Your task to perform on an android device: open chrome and create a bookmark for the current page Image 0: 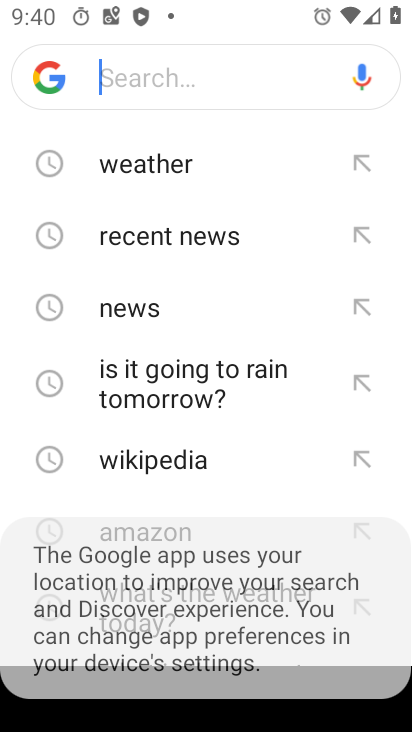
Step 0: press back button
Your task to perform on an android device: open chrome and create a bookmark for the current page Image 1: 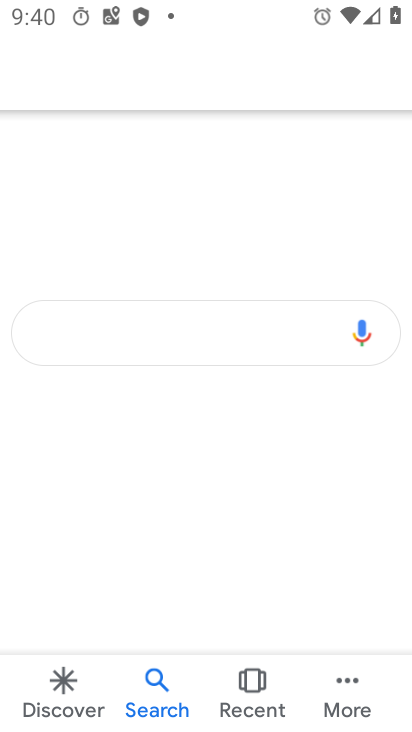
Step 1: press home button
Your task to perform on an android device: open chrome and create a bookmark for the current page Image 2: 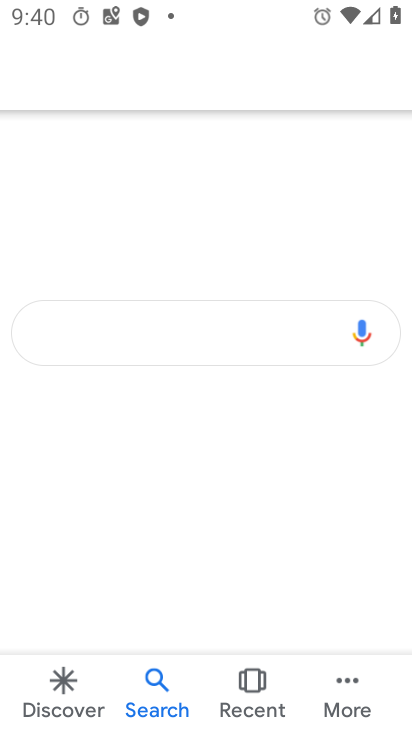
Step 2: press home button
Your task to perform on an android device: open chrome and create a bookmark for the current page Image 3: 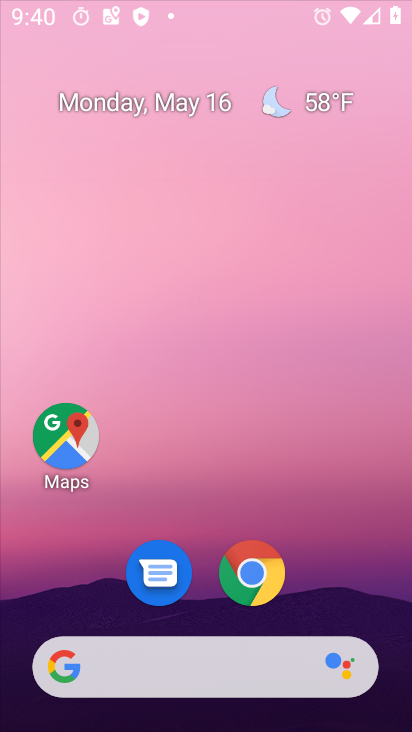
Step 3: press home button
Your task to perform on an android device: open chrome and create a bookmark for the current page Image 4: 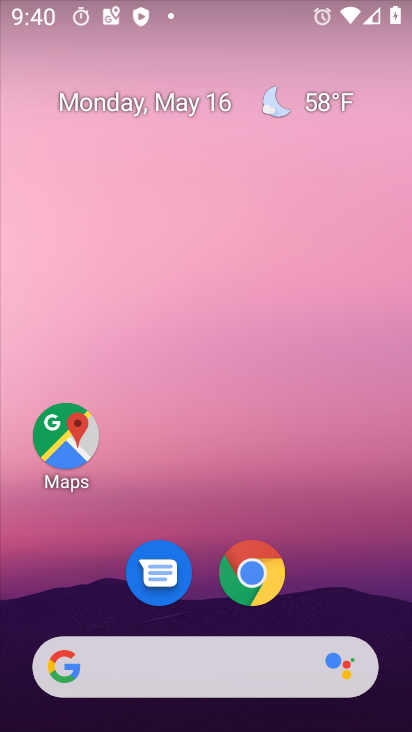
Step 4: press home button
Your task to perform on an android device: open chrome and create a bookmark for the current page Image 5: 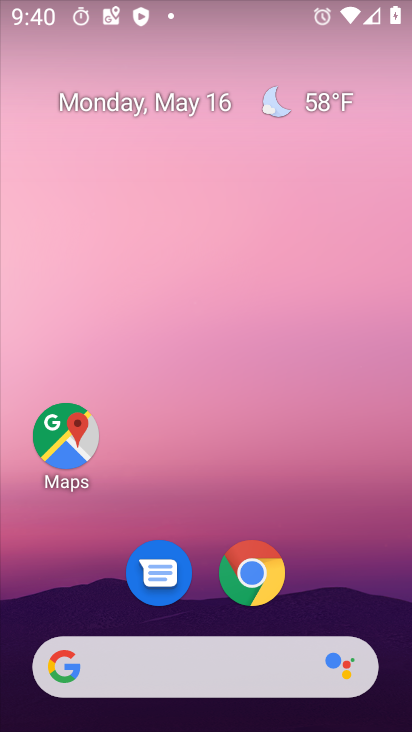
Step 5: drag from (328, 574) to (189, 192)
Your task to perform on an android device: open chrome and create a bookmark for the current page Image 6: 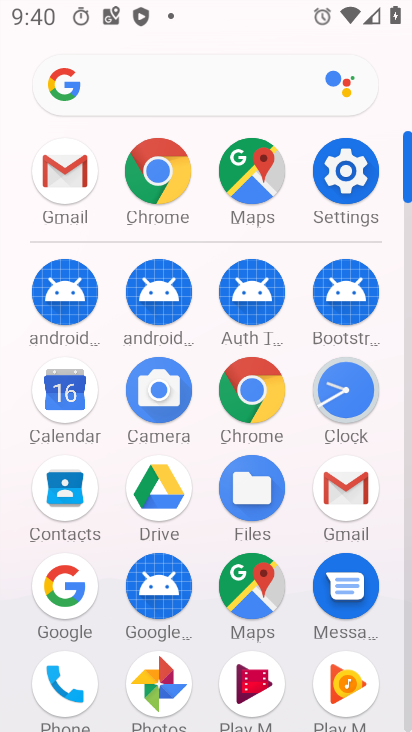
Step 6: click (157, 184)
Your task to perform on an android device: open chrome and create a bookmark for the current page Image 7: 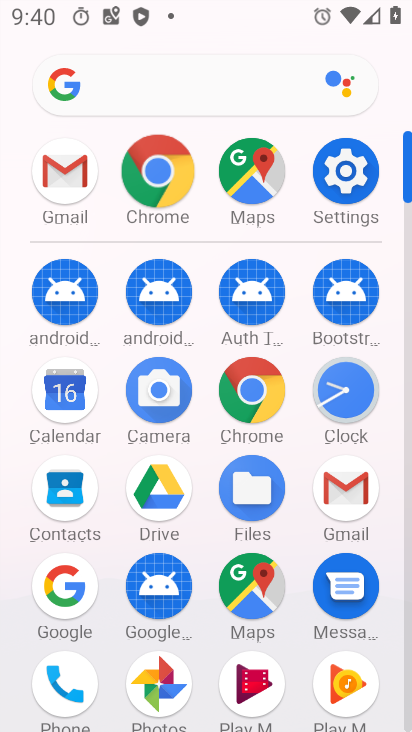
Step 7: click (157, 184)
Your task to perform on an android device: open chrome and create a bookmark for the current page Image 8: 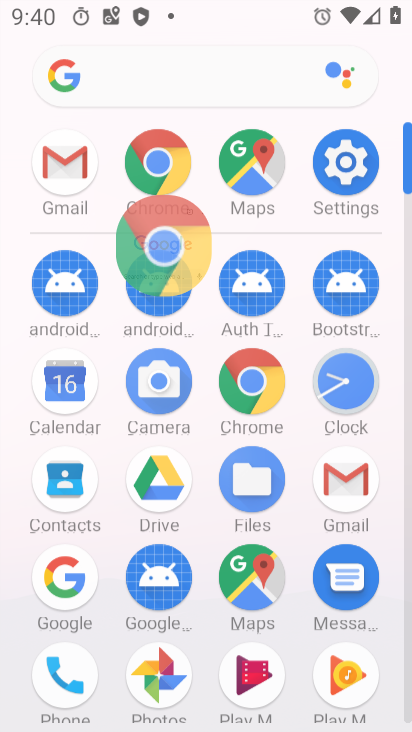
Step 8: click (158, 183)
Your task to perform on an android device: open chrome and create a bookmark for the current page Image 9: 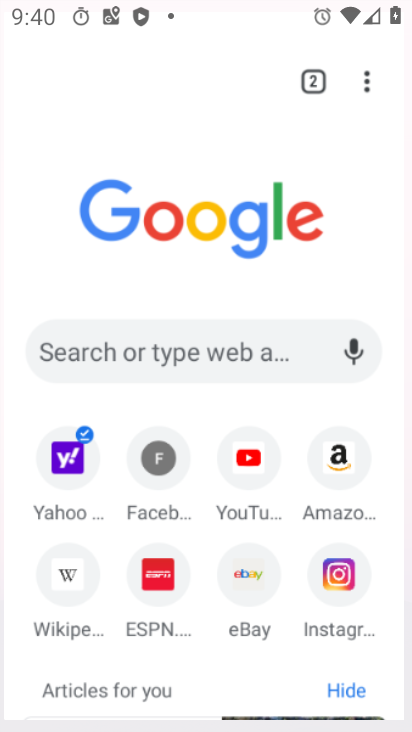
Step 9: click (159, 182)
Your task to perform on an android device: open chrome and create a bookmark for the current page Image 10: 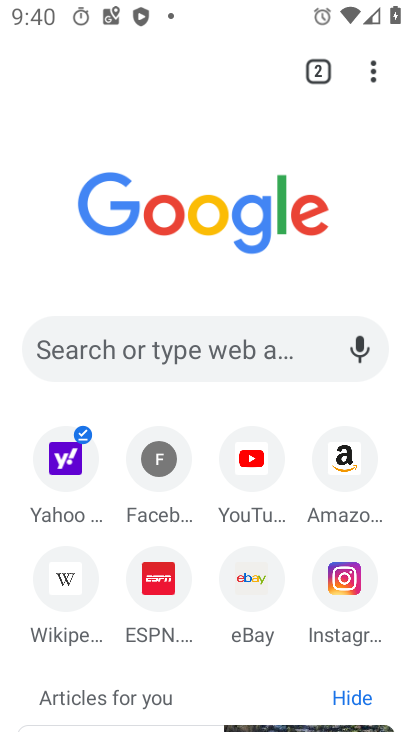
Step 10: click (58, 332)
Your task to perform on an android device: open chrome and create a bookmark for the current page Image 11: 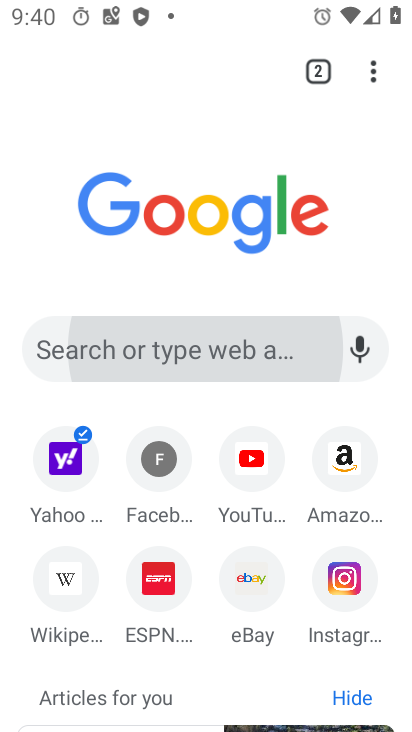
Step 11: click (58, 332)
Your task to perform on an android device: open chrome and create a bookmark for the current page Image 12: 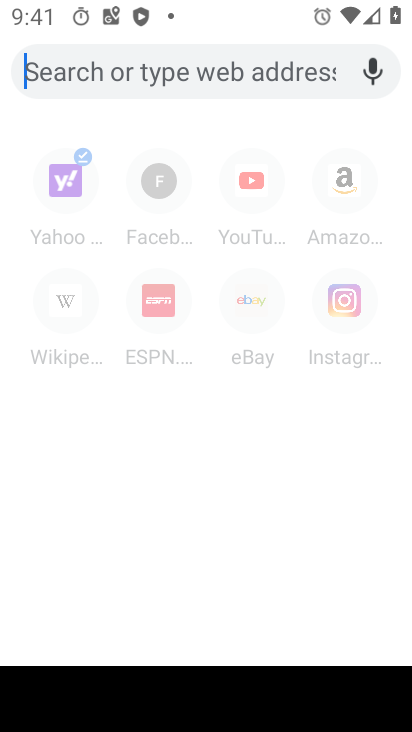
Step 12: type "www.snapdeal.com"
Your task to perform on an android device: open chrome and create a bookmark for the current page Image 13: 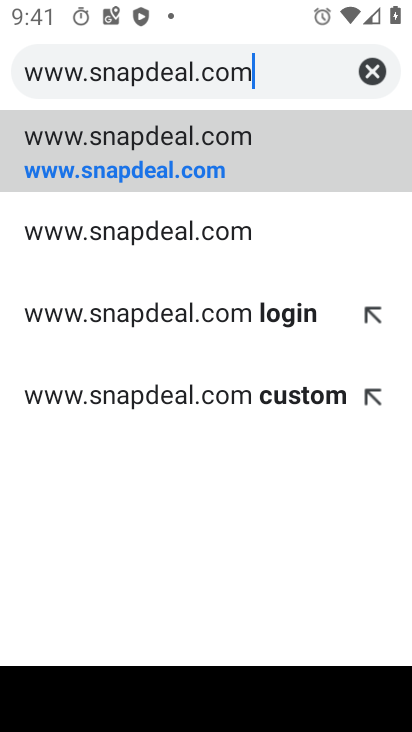
Step 13: click (194, 161)
Your task to perform on an android device: open chrome and create a bookmark for the current page Image 14: 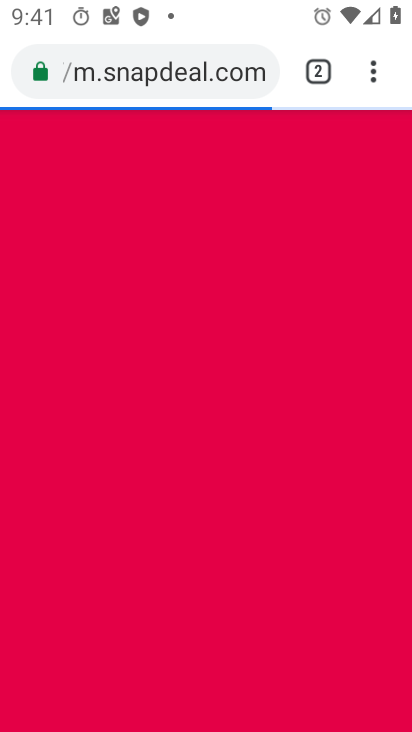
Step 14: drag from (366, 75) to (113, 278)
Your task to perform on an android device: open chrome and create a bookmark for the current page Image 15: 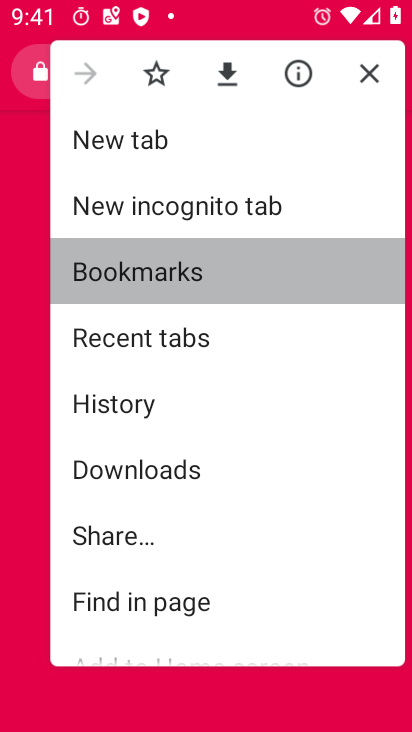
Step 15: click (113, 278)
Your task to perform on an android device: open chrome and create a bookmark for the current page Image 16: 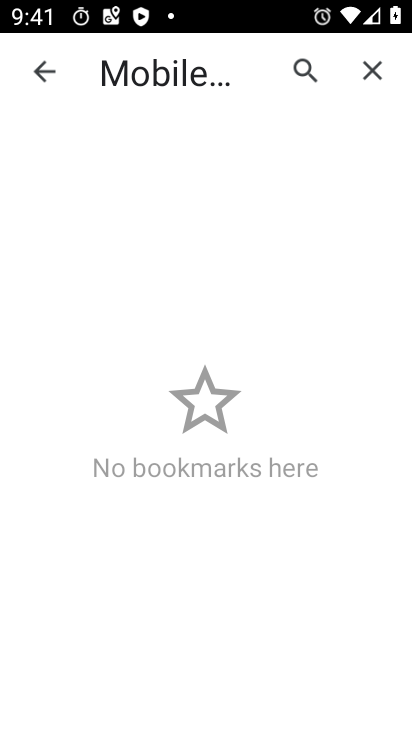
Step 16: task complete